Your task to perform on an android device: turn on improve location accuracy Image 0: 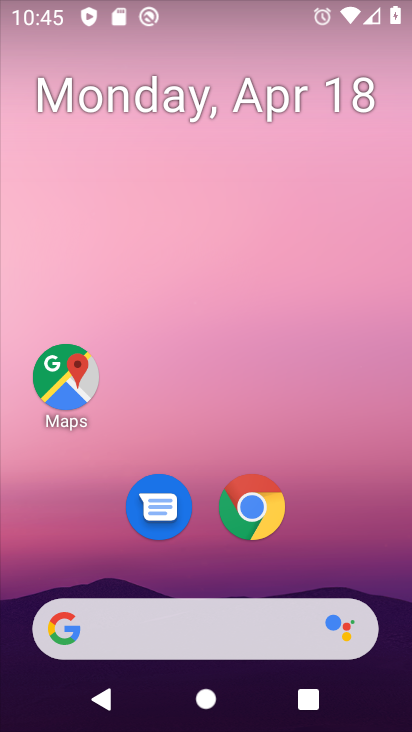
Step 0: drag from (240, 669) to (303, 266)
Your task to perform on an android device: turn on improve location accuracy Image 1: 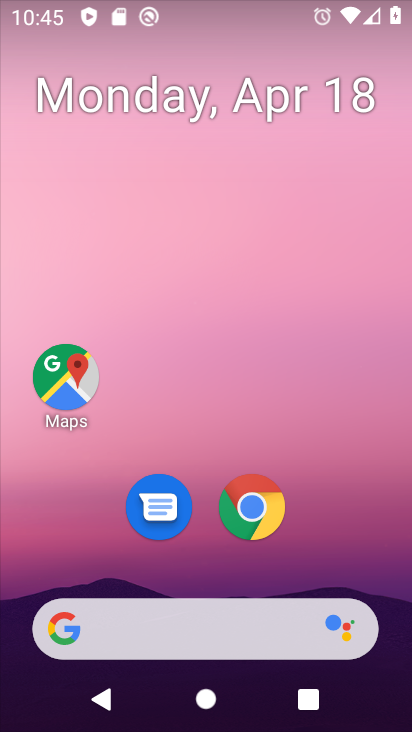
Step 1: drag from (302, 657) to (227, 176)
Your task to perform on an android device: turn on improve location accuracy Image 2: 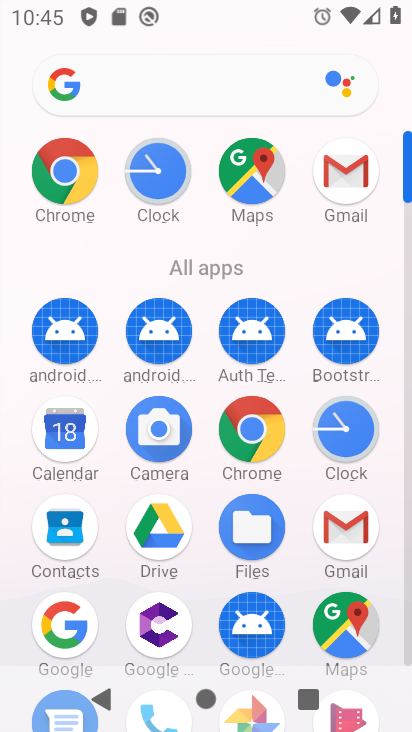
Step 2: drag from (114, 585) to (194, 387)
Your task to perform on an android device: turn on improve location accuracy Image 3: 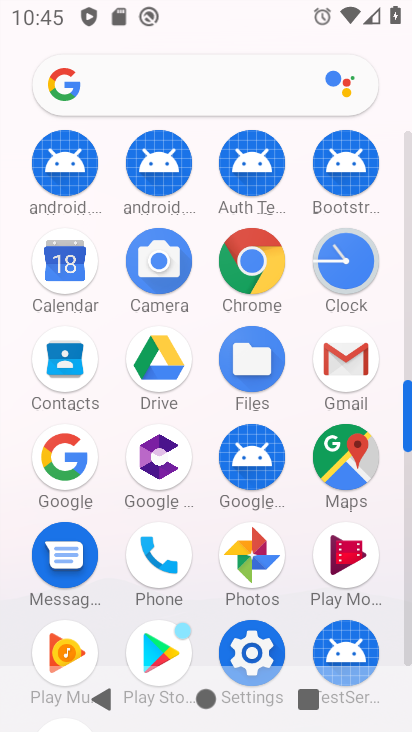
Step 3: click (256, 622)
Your task to perform on an android device: turn on improve location accuracy Image 4: 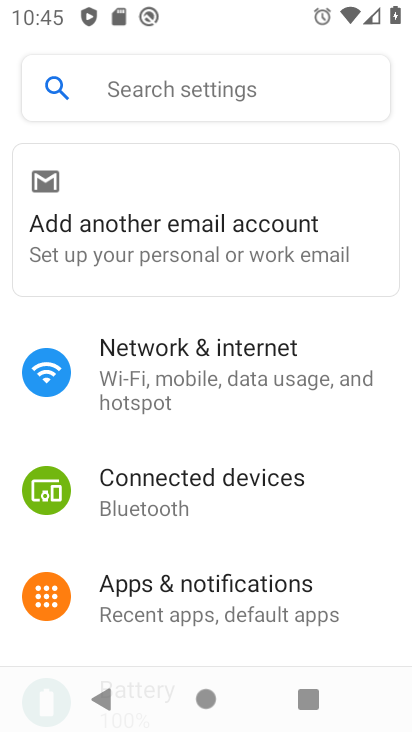
Step 4: click (192, 83)
Your task to perform on an android device: turn on improve location accuracy Image 5: 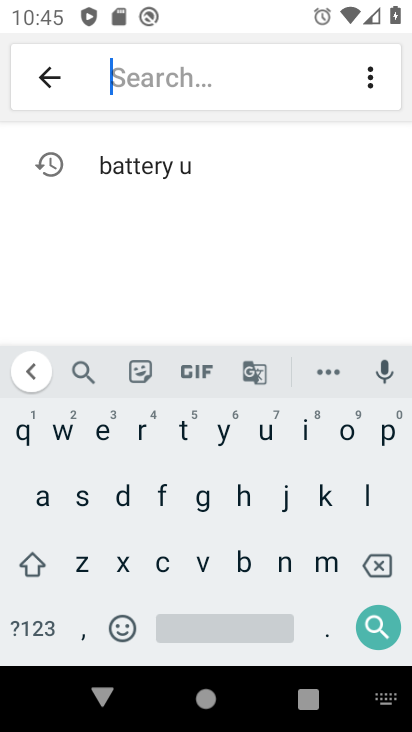
Step 5: click (368, 493)
Your task to perform on an android device: turn on improve location accuracy Image 6: 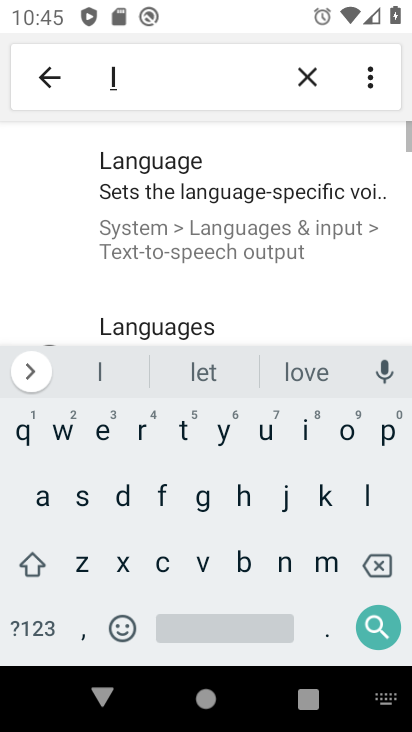
Step 6: click (344, 442)
Your task to perform on an android device: turn on improve location accuracy Image 7: 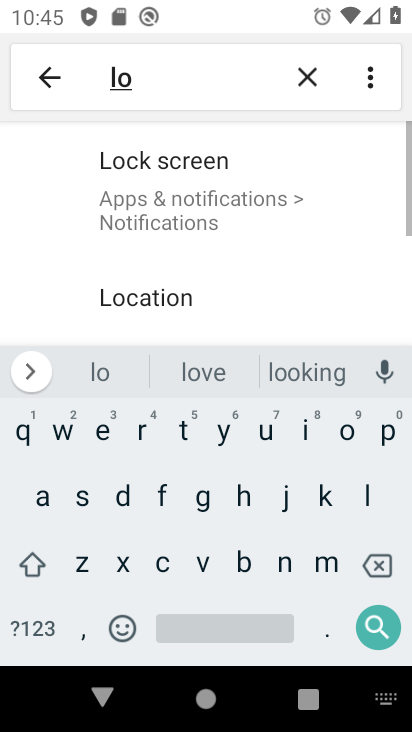
Step 7: click (163, 562)
Your task to perform on an android device: turn on improve location accuracy Image 8: 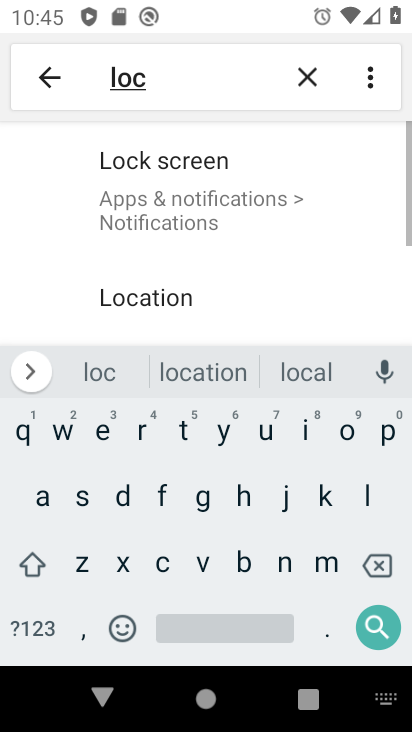
Step 8: click (39, 501)
Your task to perform on an android device: turn on improve location accuracy Image 9: 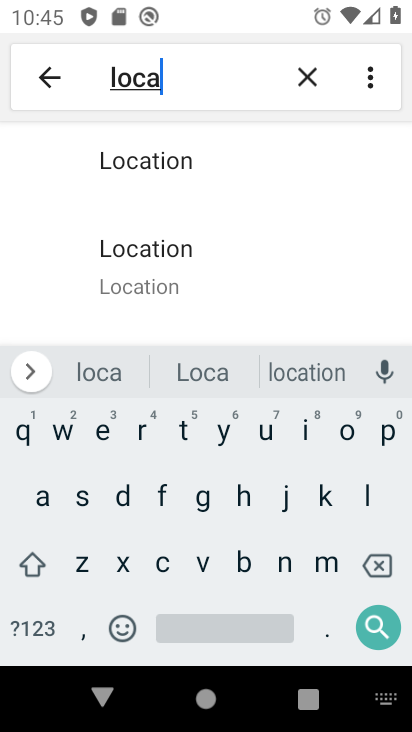
Step 9: click (132, 288)
Your task to perform on an android device: turn on improve location accuracy Image 10: 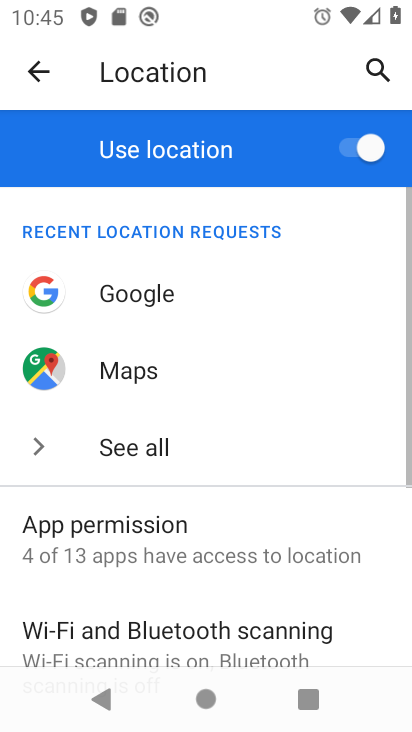
Step 10: drag from (214, 610) to (271, 361)
Your task to perform on an android device: turn on improve location accuracy Image 11: 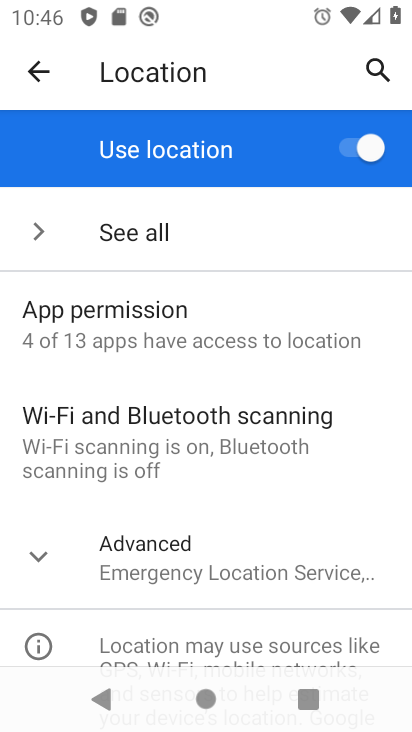
Step 11: click (143, 553)
Your task to perform on an android device: turn on improve location accuracy Image 12: 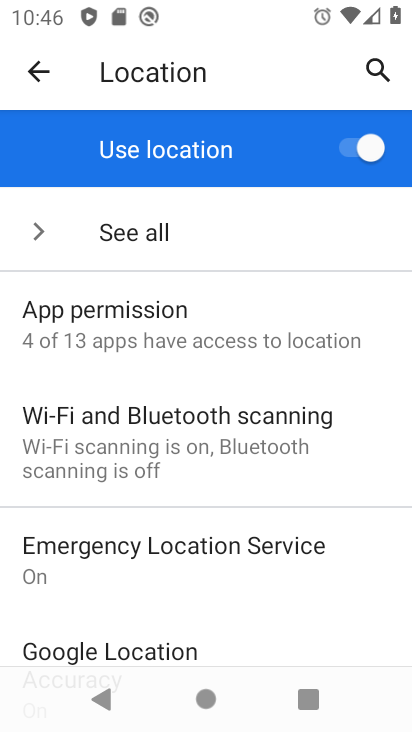
Step 12: drag from (208, 536) to (195, 449)
Your task to perform on an android device: turn on improve location accuracy Image 13: 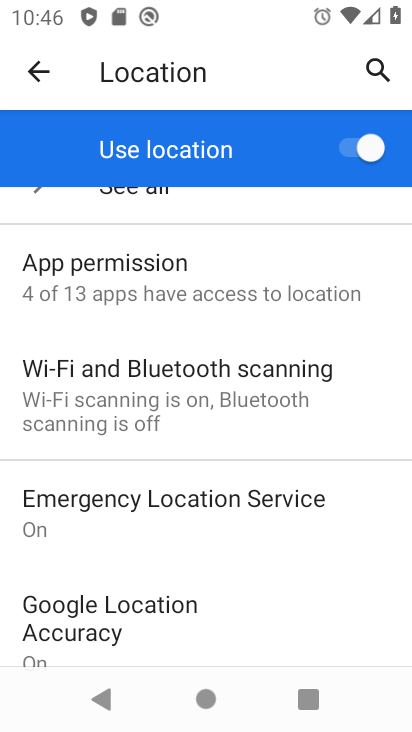
Step 13: click (165, 614)
Your task to perform on an android device: turn on improve location accuracy Image 14: 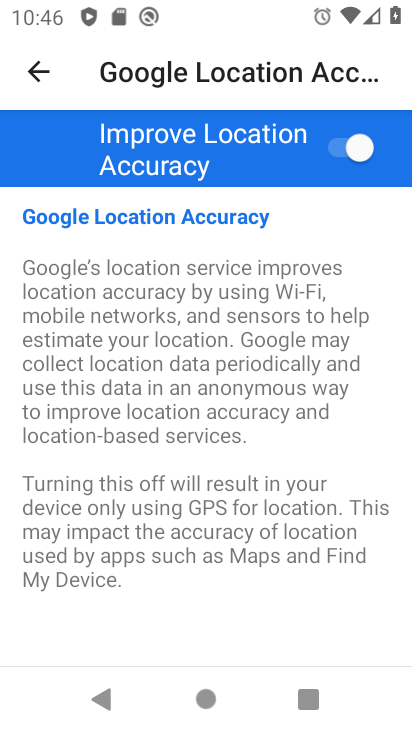
Step 14: task complete